Your task to perform on an android device: see creations saved in the google photos Image 0: 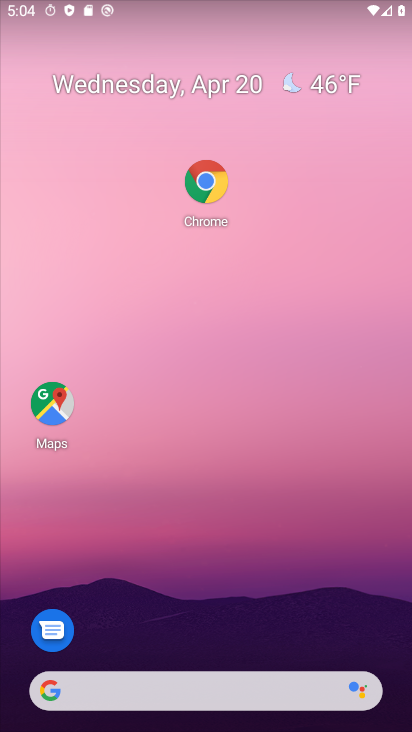
Step 0: drag from (267, 384) to (324, 173)
Your task to perform on an android device: see creations saved in the google photos Image 1: 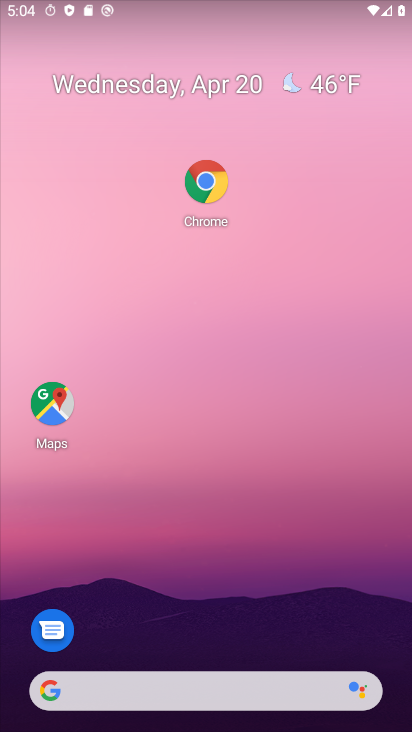
Step 1: drag from (176, 648) to (319, 302)
Your task to perform on an android device: see creations saved in the google photos Image 2: 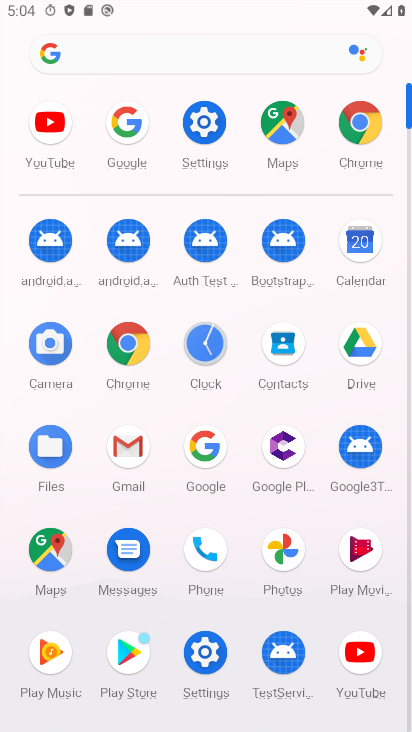
Step 2: click (288, 560)
Your task to perform on an android device: see creations saved in the google photos Image 3: 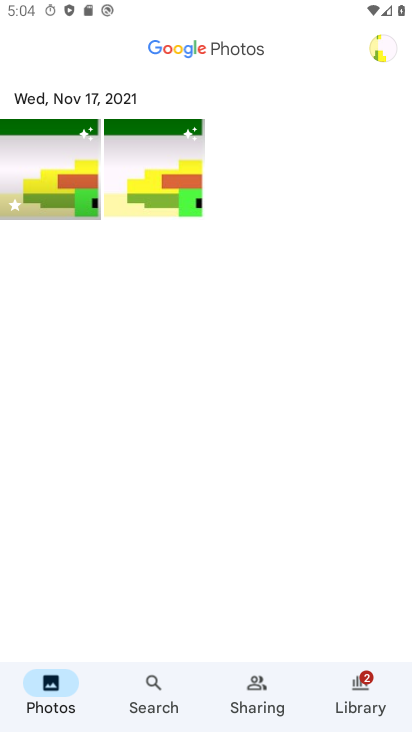
Step 3: click (367, 687)
Your task to perform on an android device: see creations saved in the google photos Image 4: 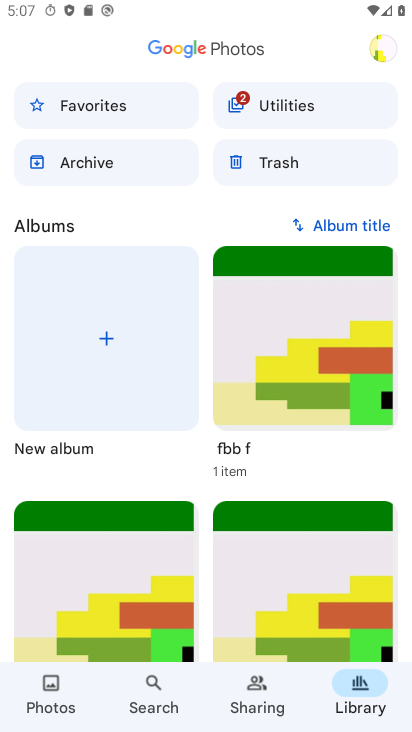
Step 4: task complete